Your task to perform on an android device: Open Wikipedia Image 0: 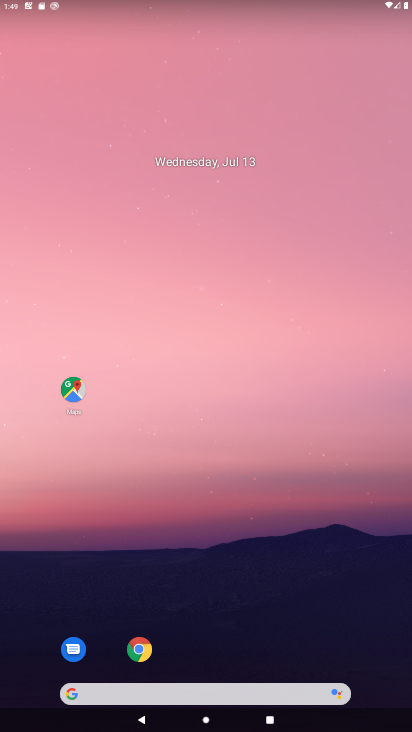
Step 0: press home button
Your task to perform on an android device: Open Wikipedia Image 1: 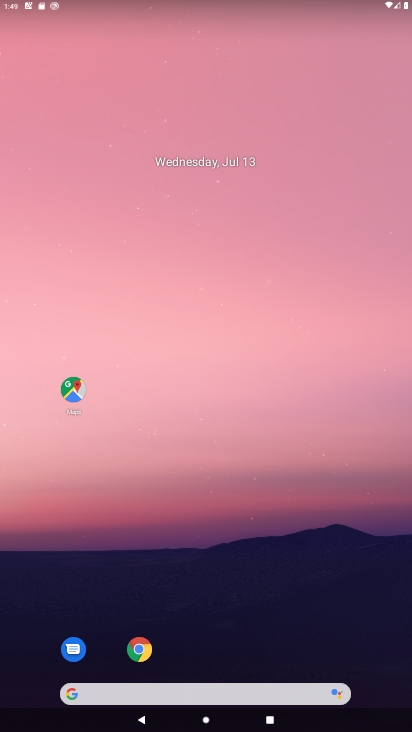
Step 1: drag from (300, 614) to (242, 32)
Your task to perform on an android device: Open Wikipedia Image 2: 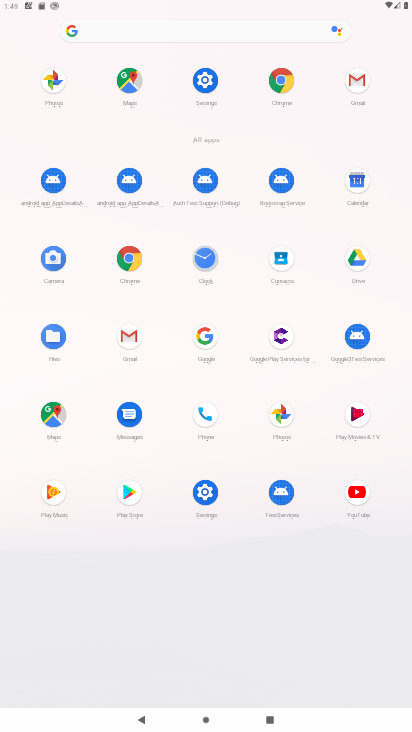
Step 2: click (193, 490)
Your task to perform on an android device: Open Wikipedia Image 3: 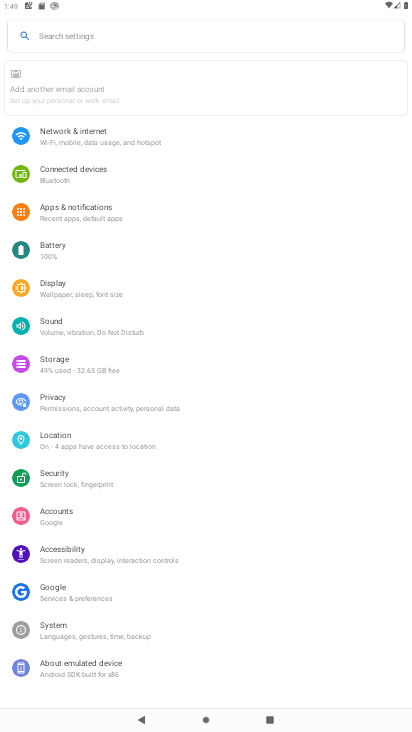
Step 3: press home button
Your task to perform on an android device: Open Wikipedia Image 4: 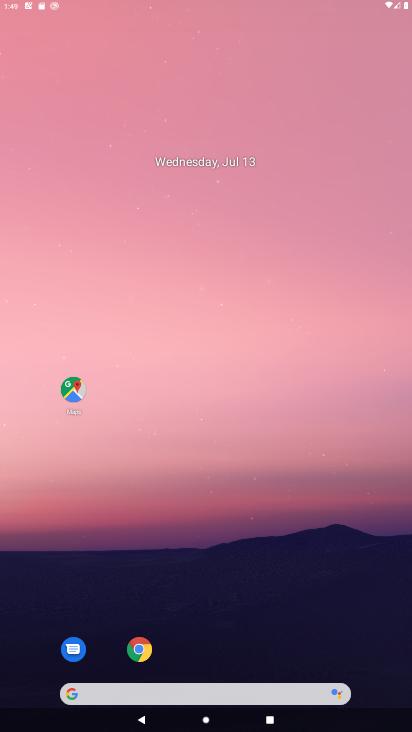
Step 4: drag from (187, 652) to (168, 21)
Your task to perform on an android device: Open Wikipedia Image 5: 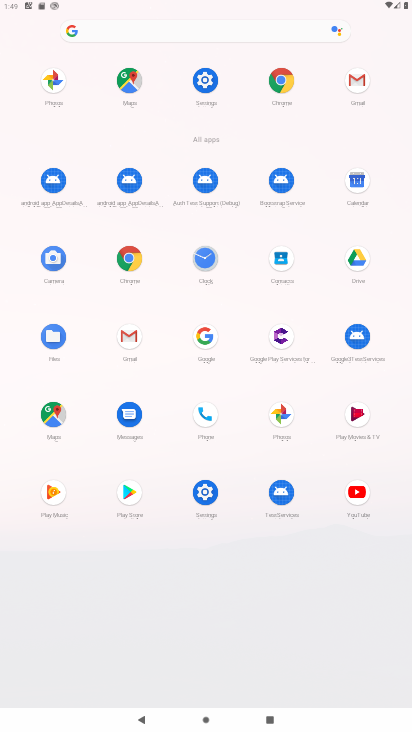
Step 5: click (119, 314)
Your task to perform on an android device: Open Wikipedia Image 6: 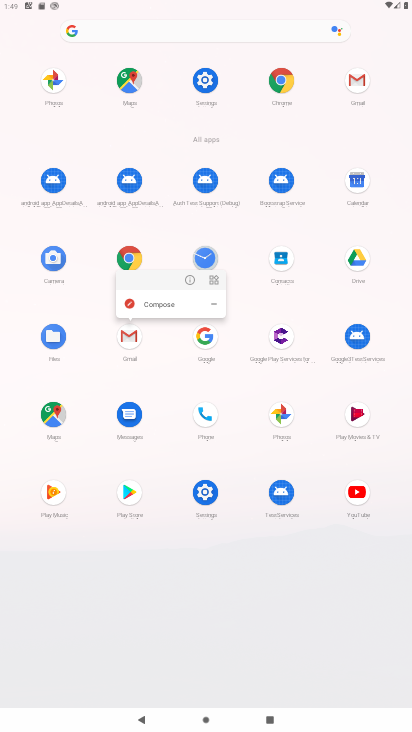
Step 6: click (136, 249)
Your task to perform on an android device: Open Wikipedia Image 7: 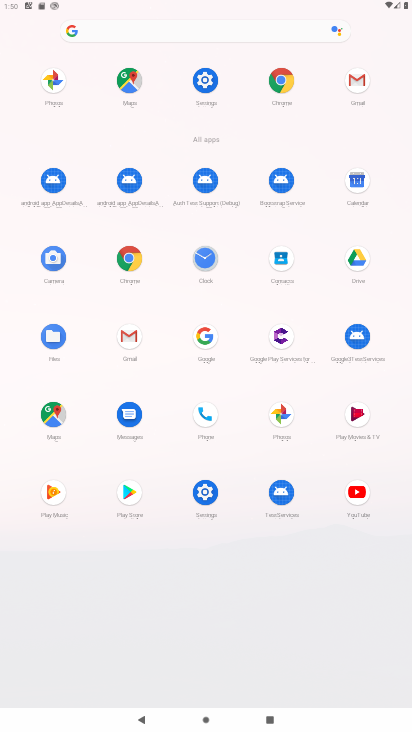
Step 7: click (123, 253)
Your task to perform on an android device: Open Wikipedia Image 8: 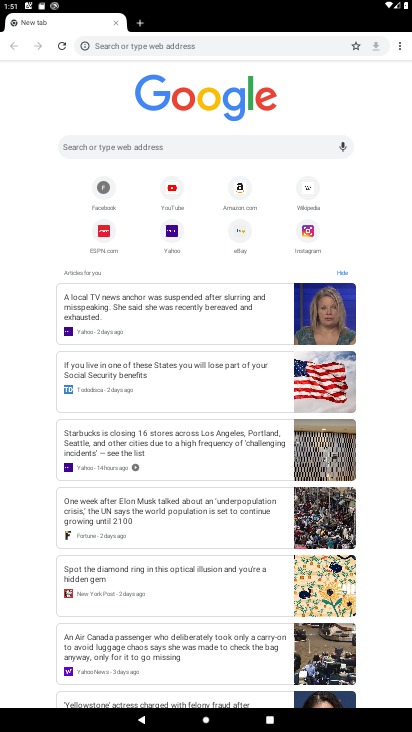
Step 8: click (144, 148)
Your task to perform on an android device: Open Wikipedia Image 9: 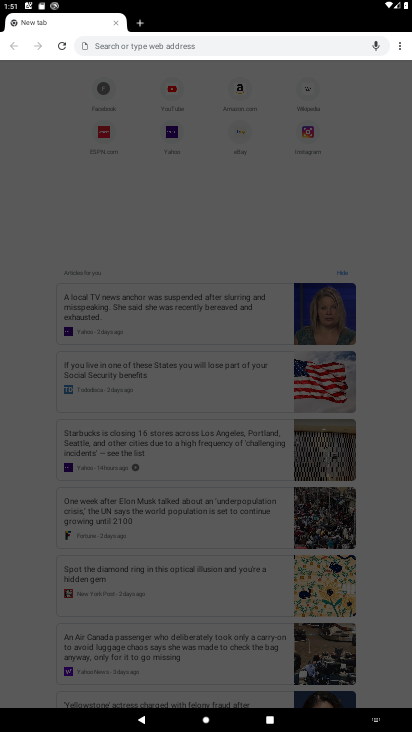
Step 9: click (89, 401)
Your task to perform on an android device: Open Wikipedia Image 10: 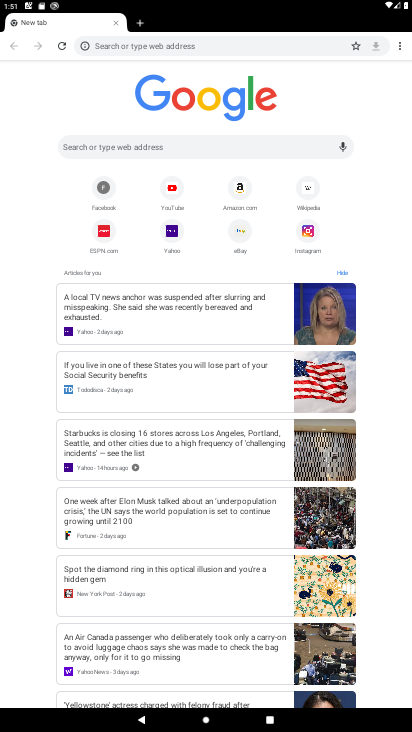
Step 10: click (303, 192)
Your task to perform on an android device: Open Wikipedia Image 11: 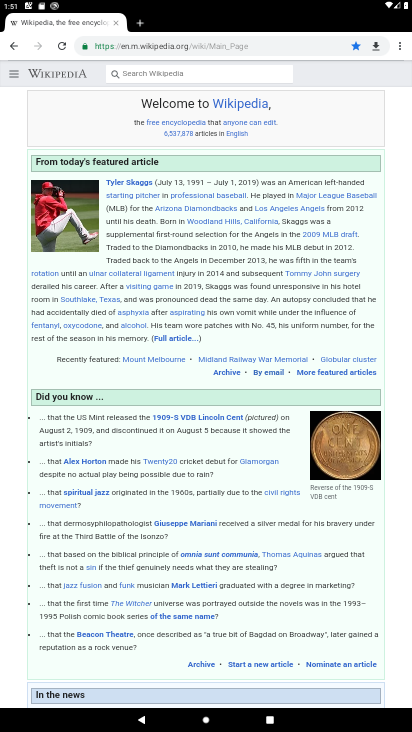
Step 11: task complete